Your task to perform on an android device: Search for vegetarian restaurants on Maps Image 0: 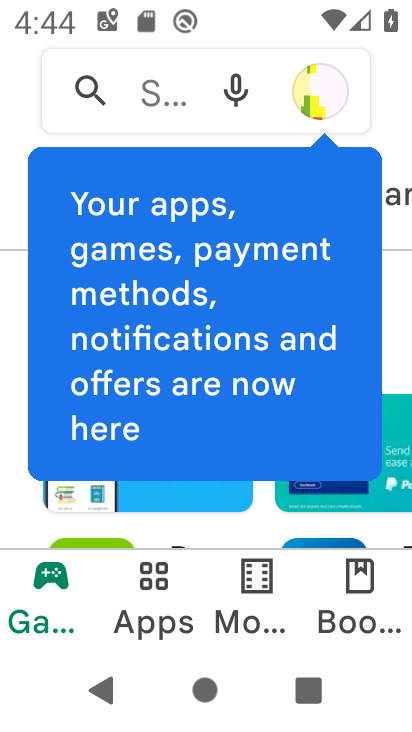
Step 0: press home button
Your task to perform on an android device: Search for vegetarian restaurants on Maps Image 1: 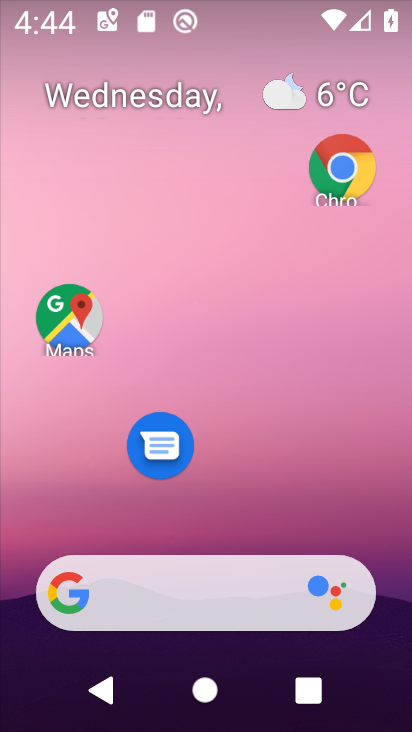
Step 1: drag from (237, 513) to (223, 9)
Your task to perform on an android device: Search for vegetarian restaurants on Maps Image 2: 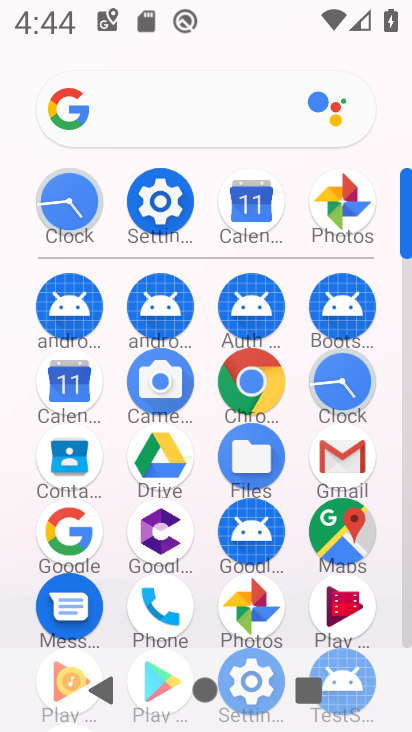
Step 2: click (328, 543)
Your task to perform on an android device: Search for vegetarian restaurants on Maps Image 3: 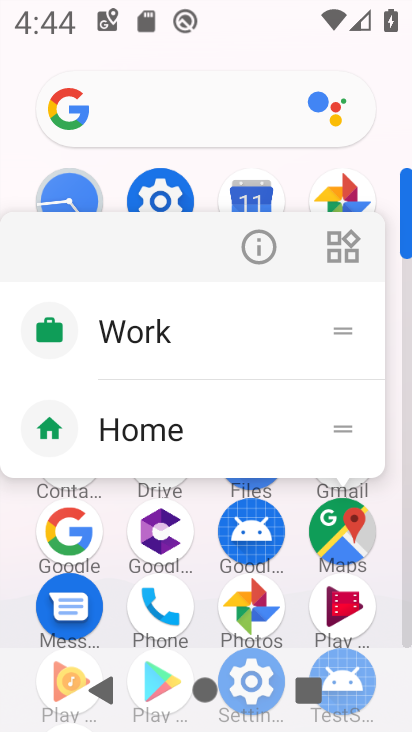
Step 3: click (352, 527)
Your task to perform on an android device: Search for vegetarian restaurants on Maps Image 4: 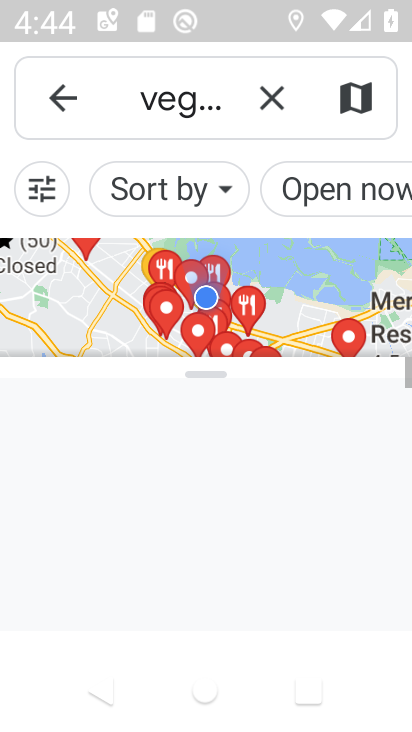
Step 4: task complete